Your task to perform on an android device: Go to accessibility settings Image 0: 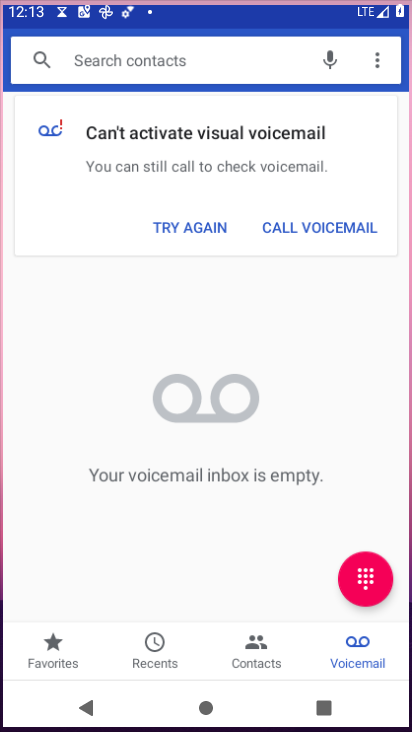
Step 0: drag from (245, 509) to (203, 51)
Your task to perform on an android device: Go to accessibility settings Image 1: 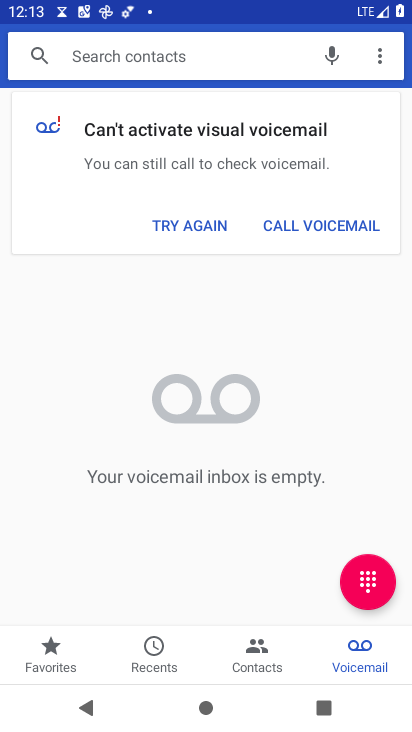
Step 1: press home button
Your task to perform on an android device: Go to accessibility settings Image 2: 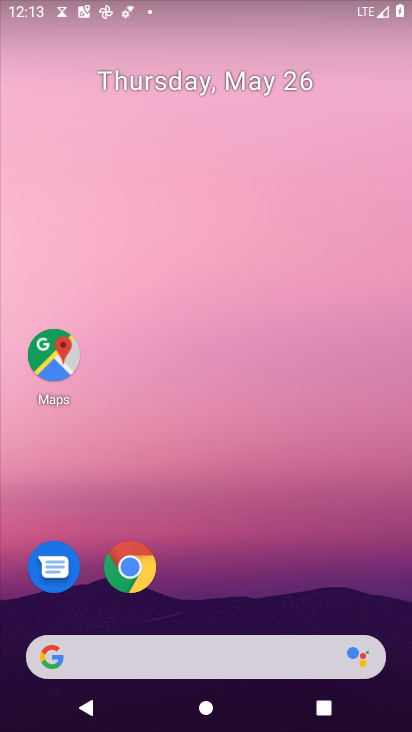
Step 2: drag from (292, 510) to (211, 6)
Your task to perform on an android device: Go to accessibility settings Image 3: 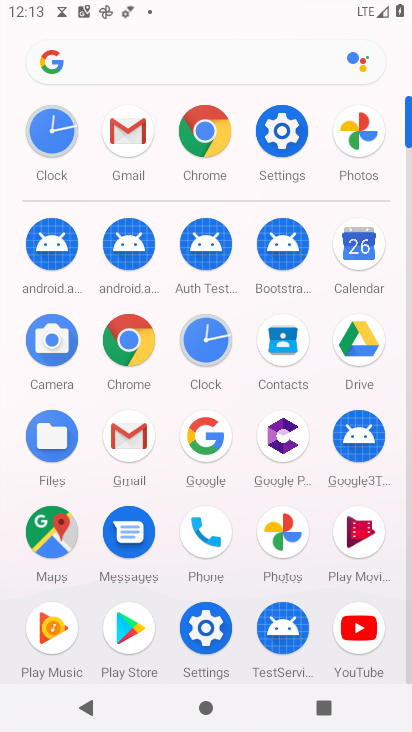
Step 3: click (261, 129)
Your task to perform on an android device: Go to accessibility settings Image 4: 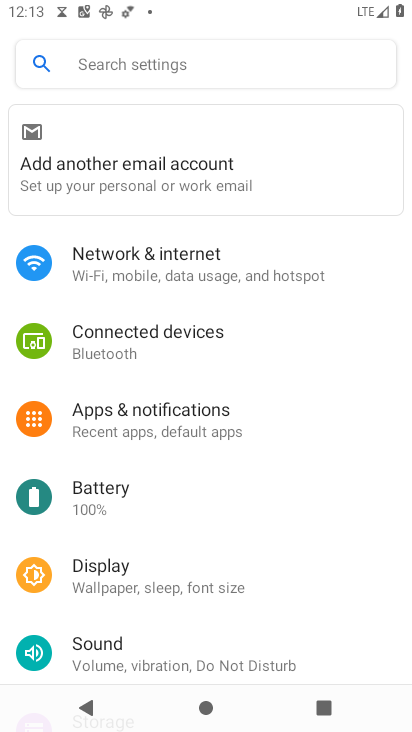
Step 4: drag from (212, 568) to (165, 198)
Your task to perform on an android device: Go to accessibility settings Image 5: 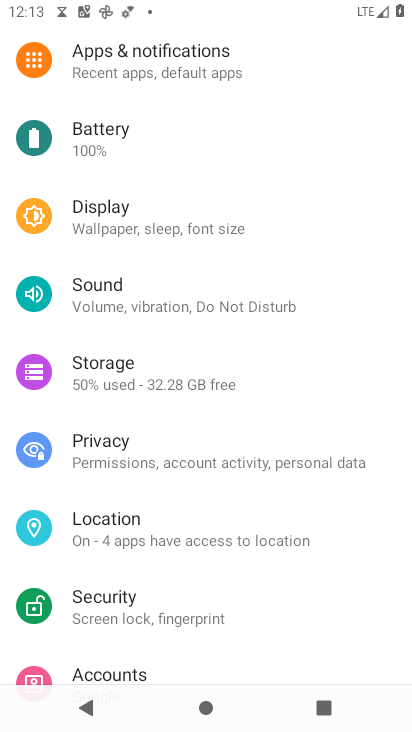
Step 5: drag from (176, 367) to (171, 193)
Your task to perform on an android device: Go to accessibility settings Image 6: 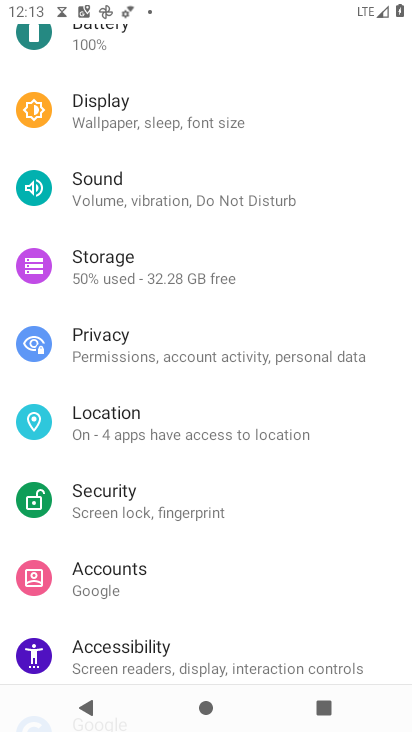
Step 6: drag from (195, 531) to (161, 209)
Your task to perform on an android device: Go to accessibility settings Image 7: 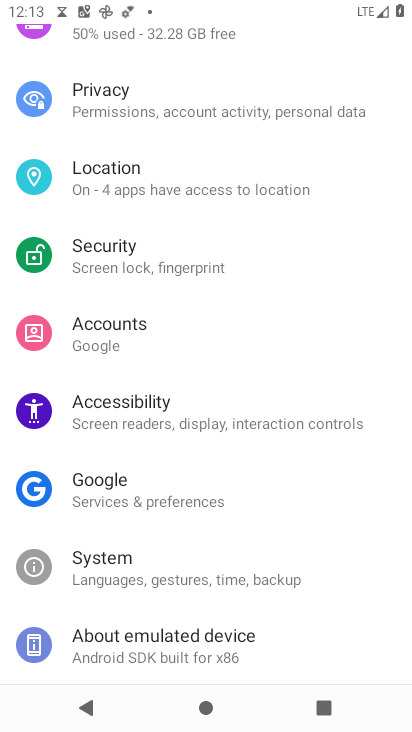
Step 7: click (169, 416)
Your task to perform on an android device: Go to accessibility settings Image 8: 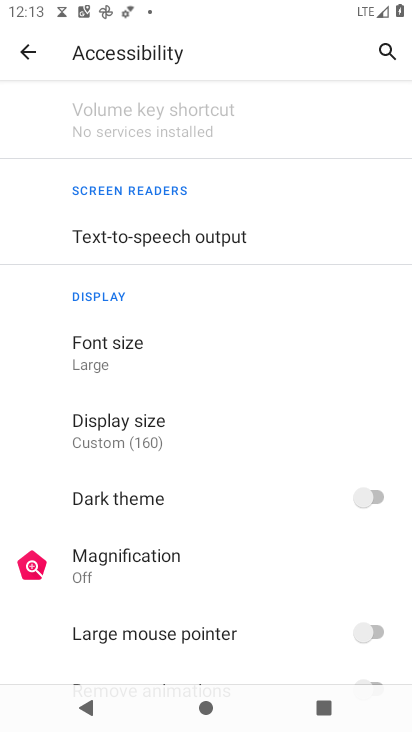
Step 8: task complete